Your task to perform on an android device: clear history in the chrome app Image 0: 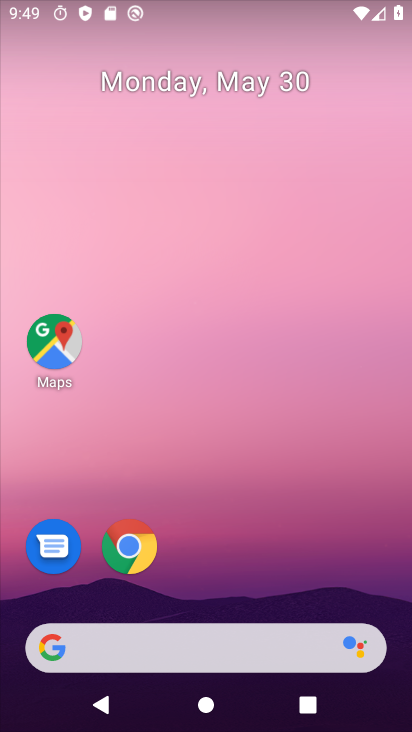
Step 0: click (146, 564)
Your task to perform on an android device: clear history in the chrome app Image 1: 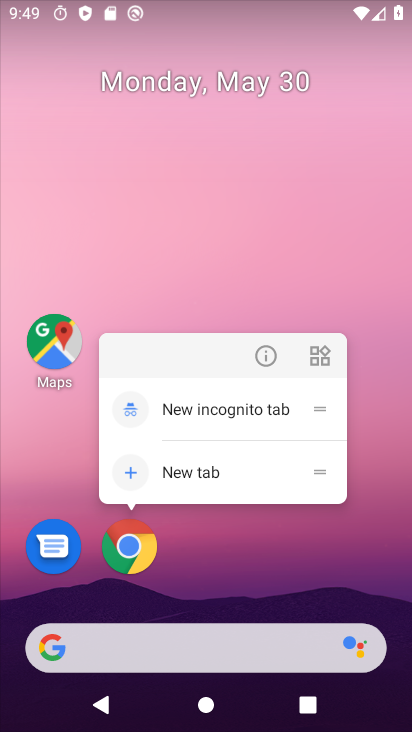
Step 1: click (127, 550)
Your task to perform on an android device: clear history in the chrome app Image 2: 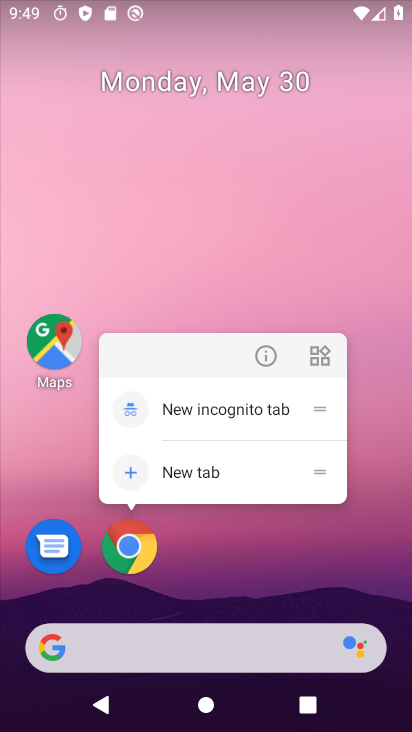
Step 2: click (127, 562)
Your task to perform on an android device: clear history in the chrome app Image 3: 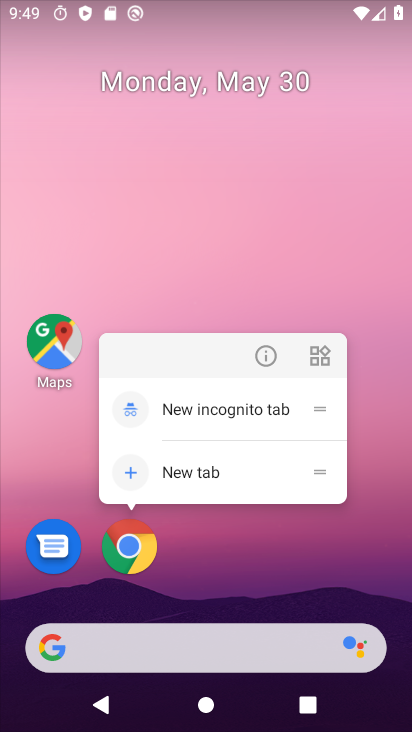
Step 3: click (138, 555)
Your task to perform on an android device: clear history in the chrome app Image 4: 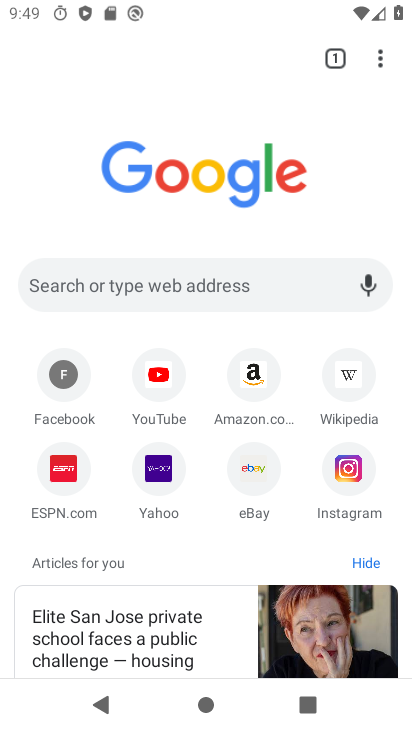
Step 4: task complete